Your task to perform on an android device: turn on sleep mode Image 0: 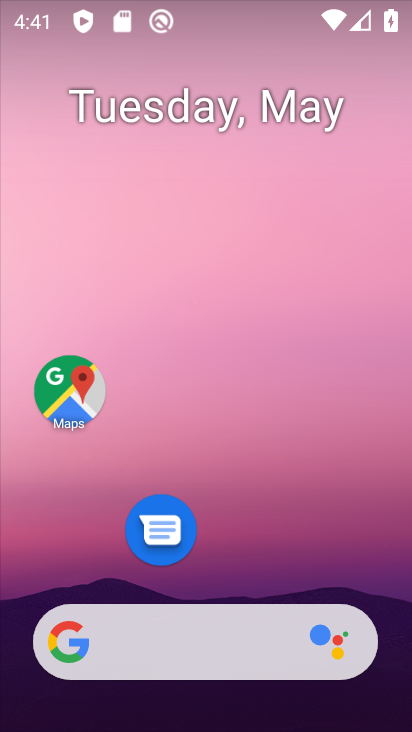
Step 0: drag from (327, 546) to (236, 117)
Your task to perform on an android device: turn on sleep mode Image 1: 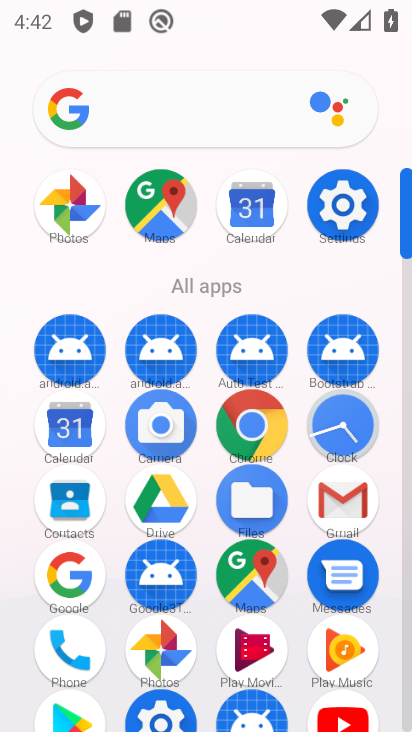
Step 1: click (326, 220)
Your task to perform on an android device: turn on sleep mode Image 2: 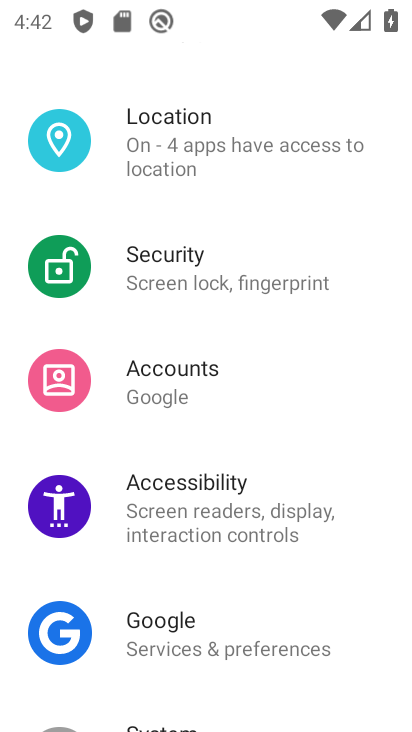
Step 2: task complete